Your task to perform on an android device: Open battery settings Image 0: 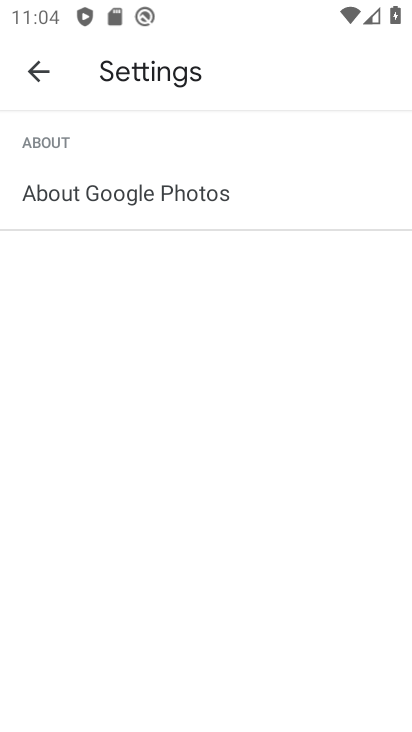
Step 0: press home button
Your task to perform on an android device: Open battery settings Image 1: 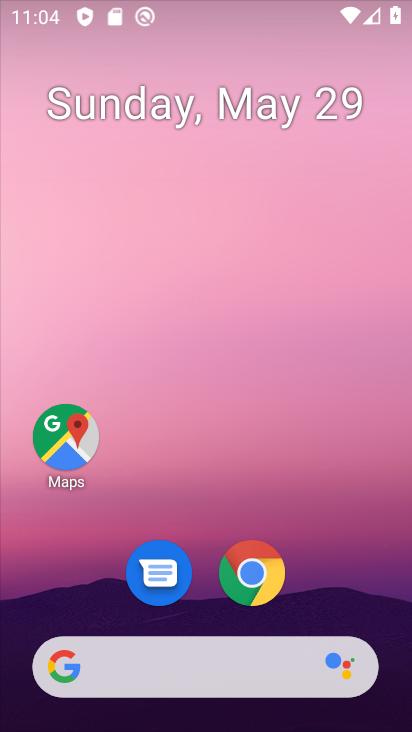
Step 1: drag from (336, 629) to (350, 213)
Your task to perform on an android device: Open battery settings Image 2: 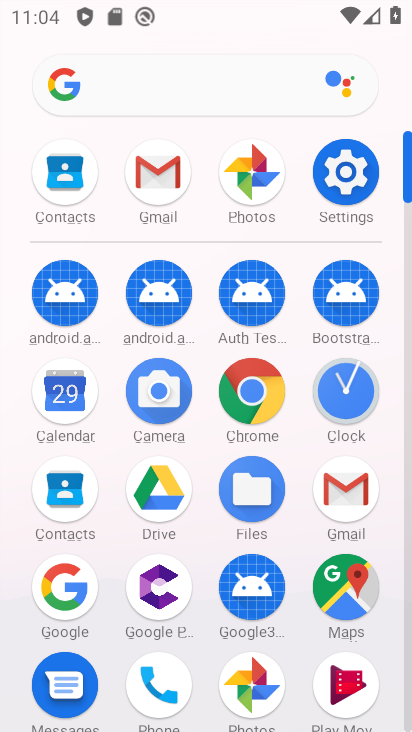
Step 2: click (339, 167)
Your task to perform on an android device: Open battery settings Image 3: 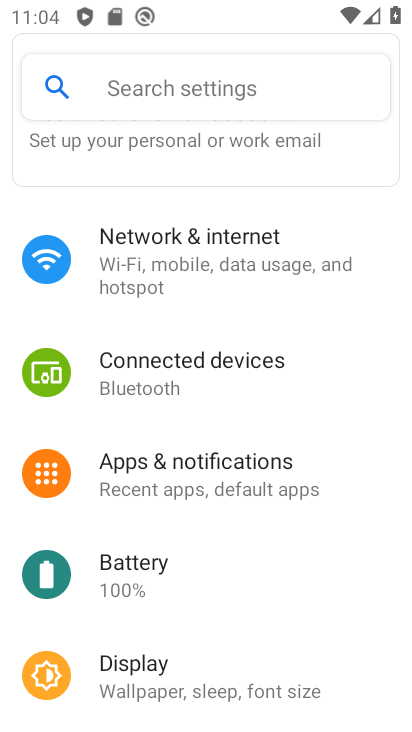
Step 3: click (144, 584)
Your task to perform on an android device: Open battery settings Image 4: 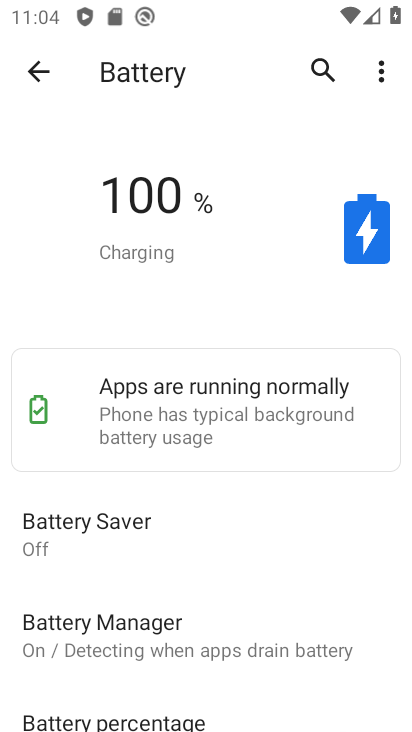
Step 4: click (375, 71)
Your task to perform on an android device: Open battery settings Image 5: 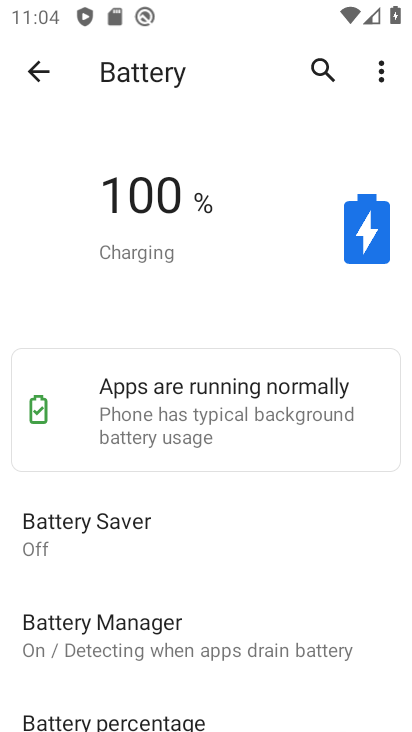
Step 5: click (297, 205)
Your task to perform on an android device: Open battery settings Image 6: 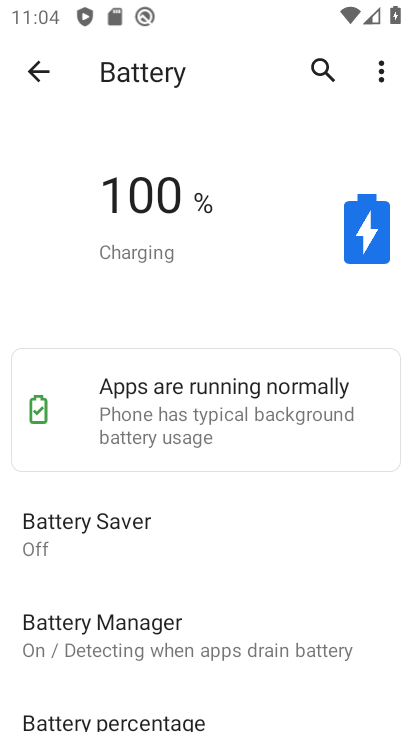
Step 6: task complete